Your task to perform on an android device: Go to Google maps Image 0: 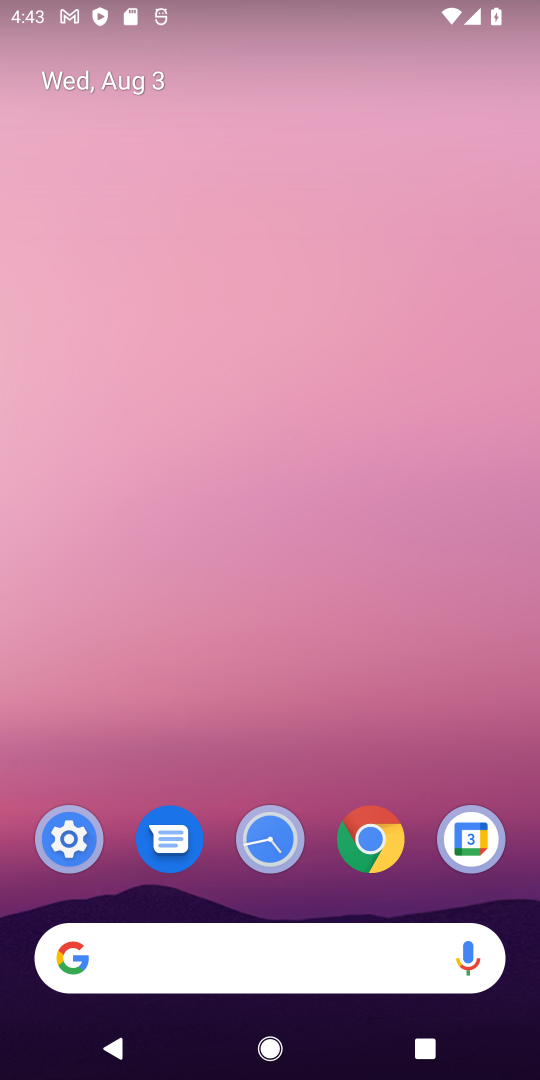
Step 0: drag from (242, 463) to (309, 133)
Your task to perform on an android device: Go to Google maps Image 1: 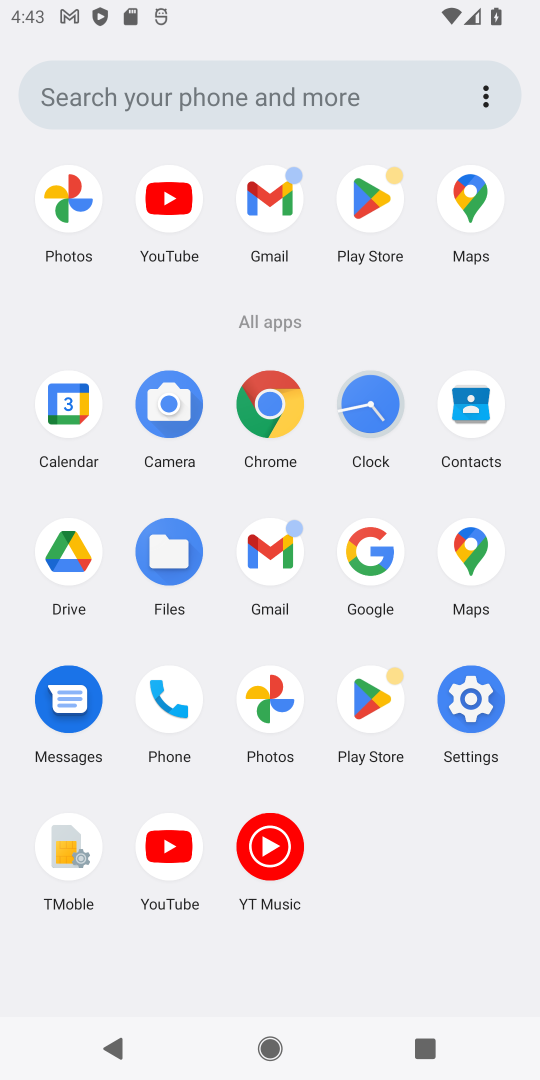
Step 1: click (473, 547)
Your task to perform on an android device: Go to Google maps Image 2: 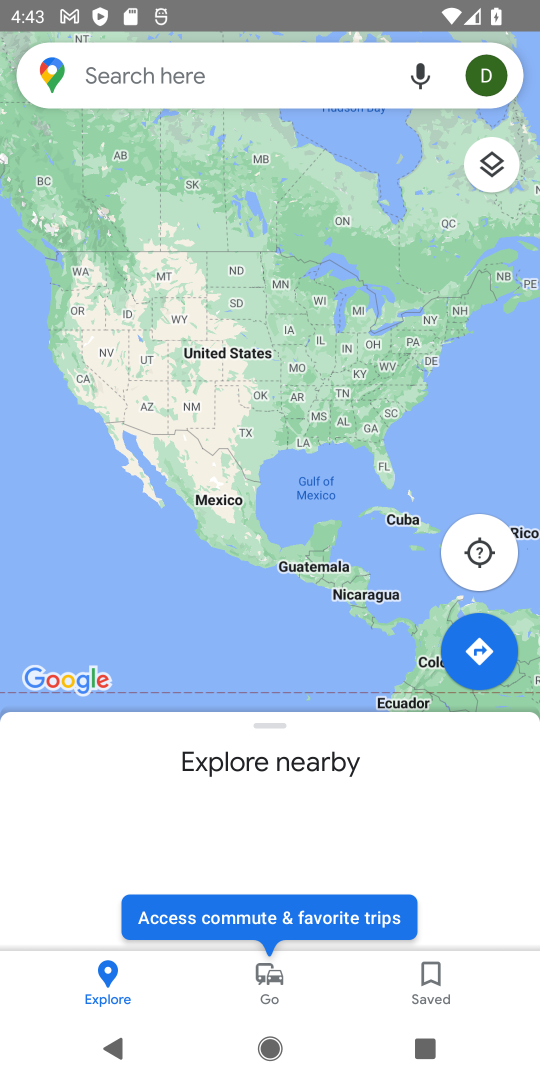
Step 2: task complete